Your task to perform on an android device: toggle airplane mode Image 0: 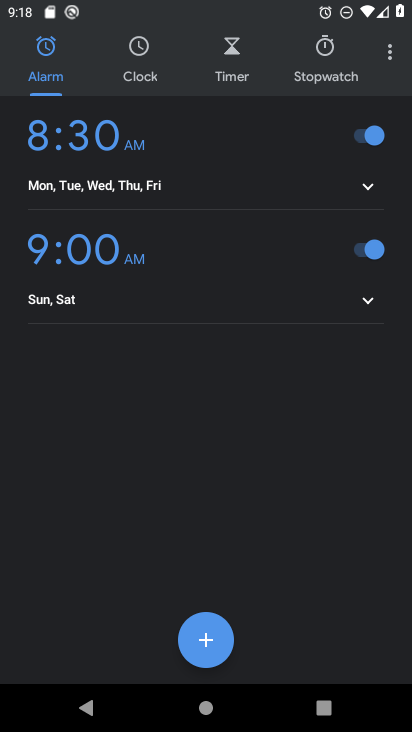
Step 0: press home button
Your task to perform on an android device: toggle airplane mode Image 1: 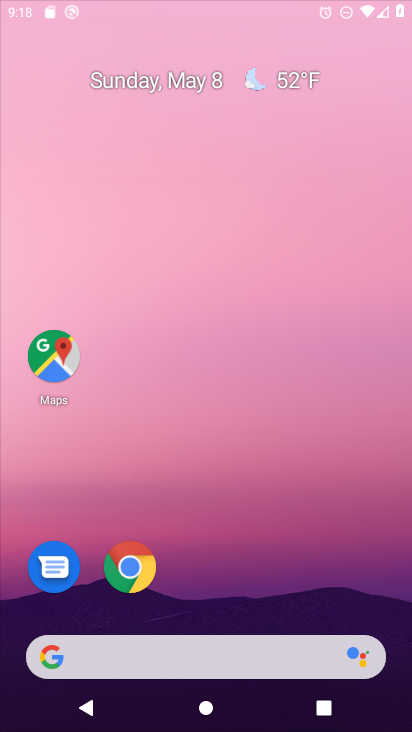
Step 1: drag from (324, 595) to (326, 99)
Your task to perform on an android device: toggle airplane mode Image 2: 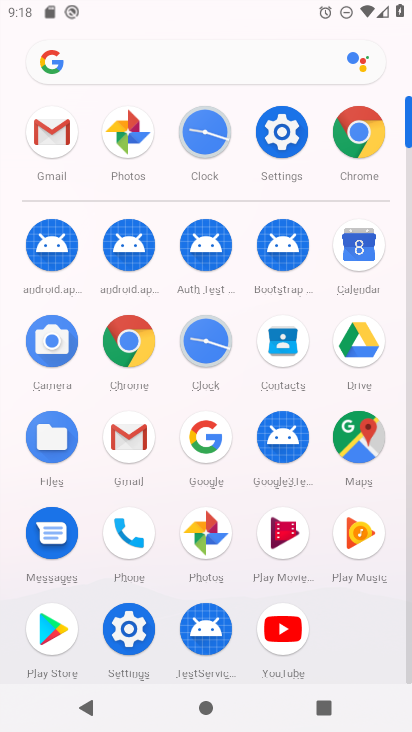
Step 2: click (291, 136)
Your task to perform on an android device: toggle airplane mode Image 3: 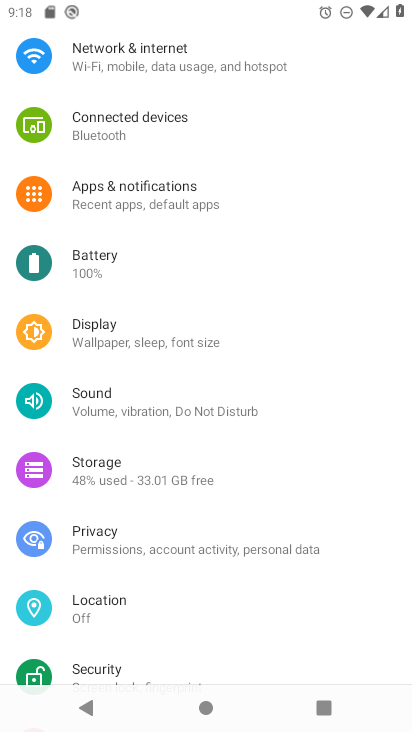
Step 3: drag from (291, 139) to (349, 617)
Your task to perform on an android device: toggle airplane mode Image 4: 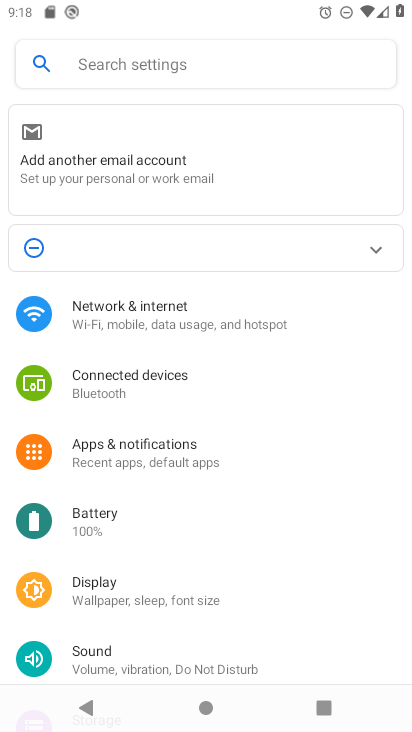
Step 4: drag from (231, 414) to (266, 558)
Your task to perform on an android device: toggle airplane mode Image 5: 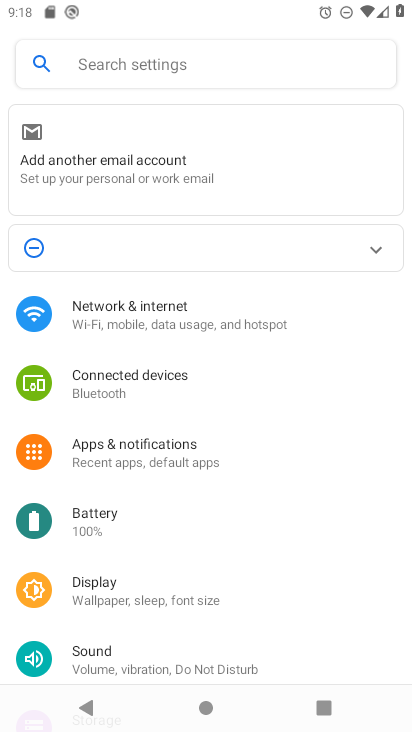
Step 5: click (135, 316)
Your task to perform on an android device: toggle airplane mode Image 6: 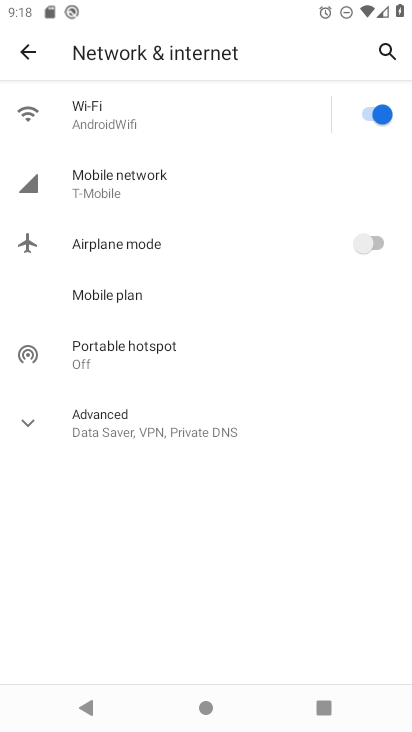
Step 6: click (374, 248)
Your task to perform on an android device: toggle airplane mode Image 7: 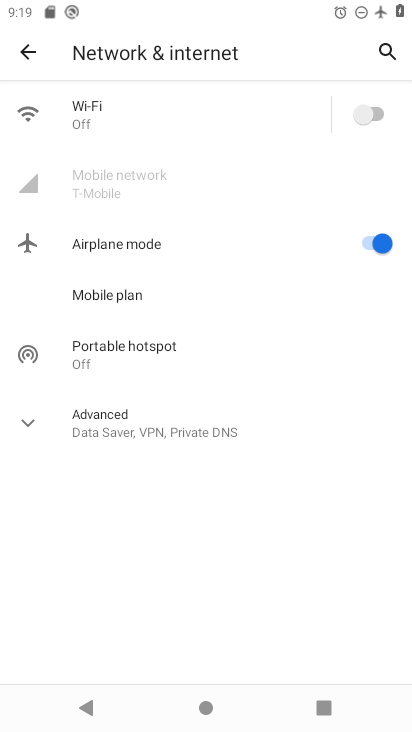
Step 7: task complete